Your task to perform on an android device: Go to settings Image 0: 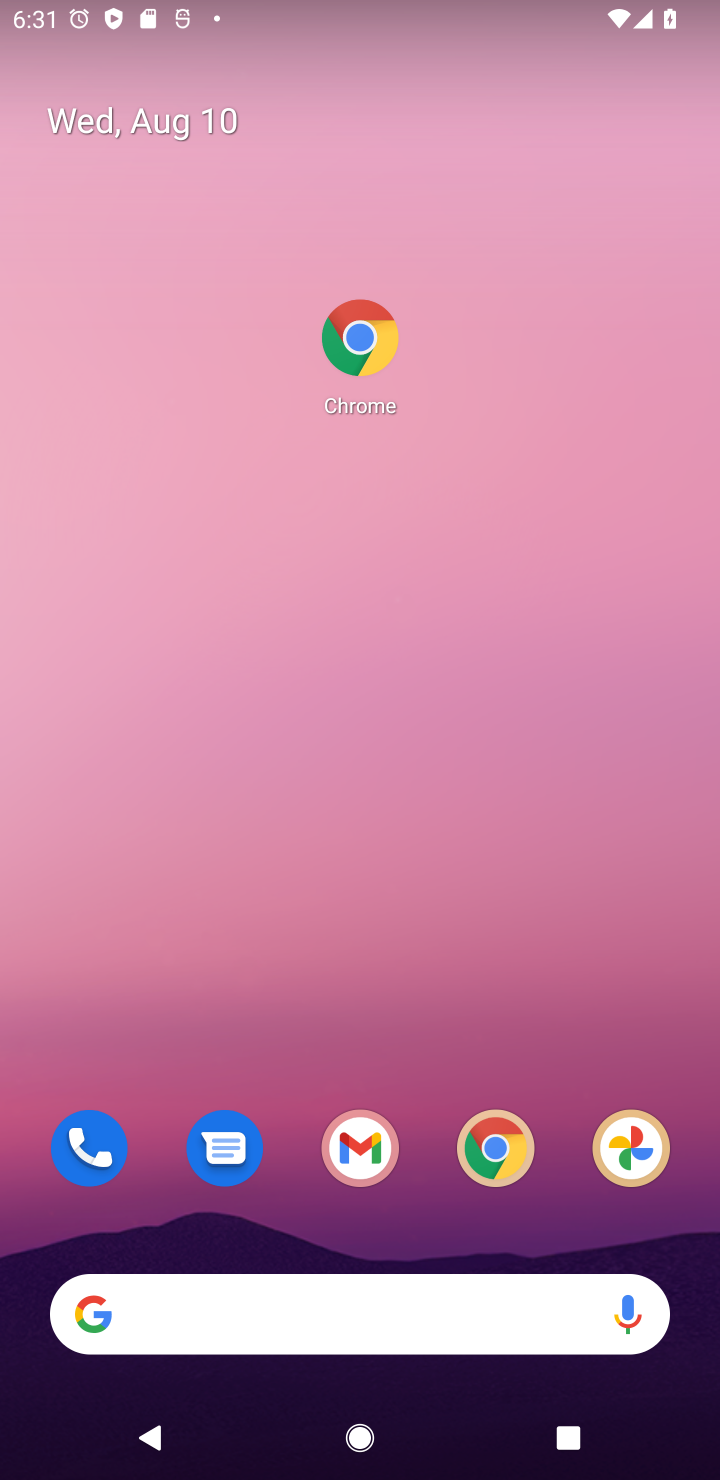
Step 0: drag from (443, 1044) to (454, 73)
Your task to perform on an android device: Go to settings Image 1: 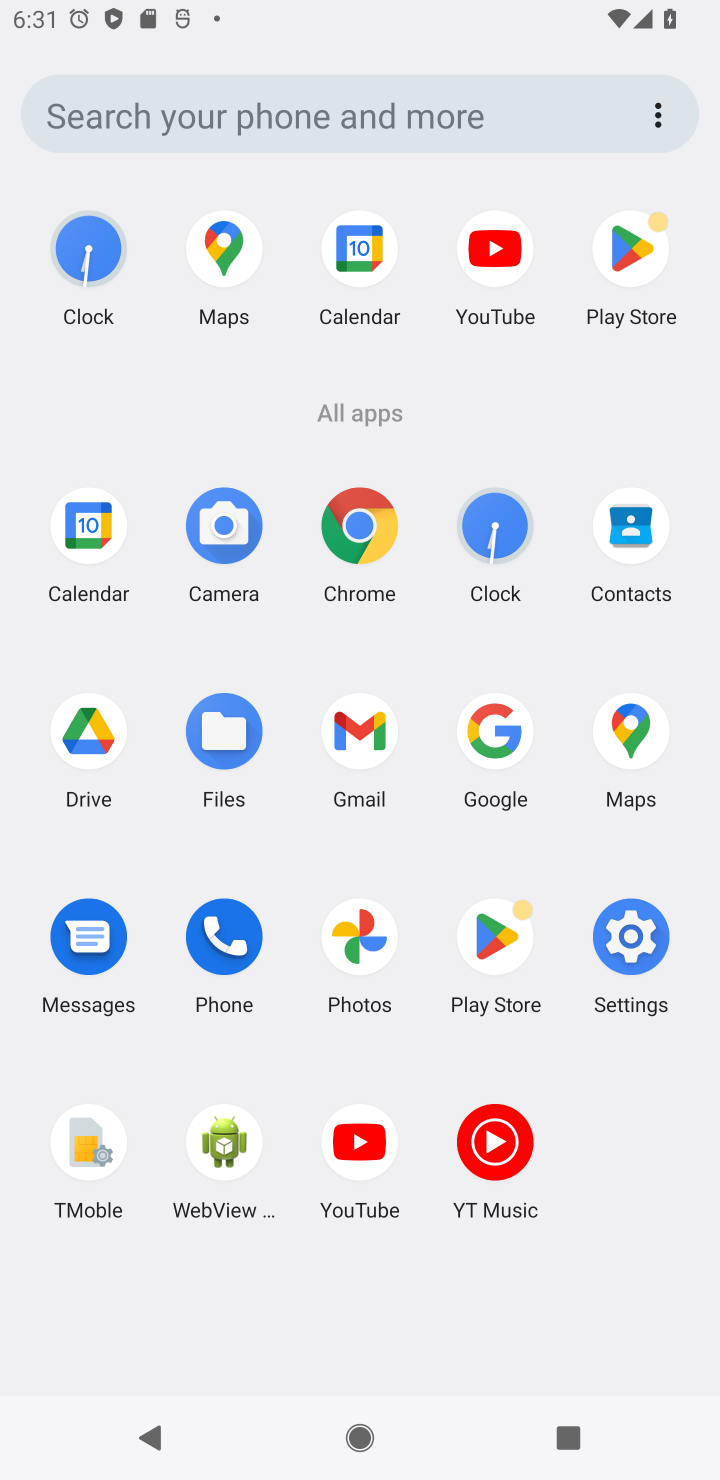
Step 1: click (629, 951)
Your task to perform on an android device: Go to settings Image 2: 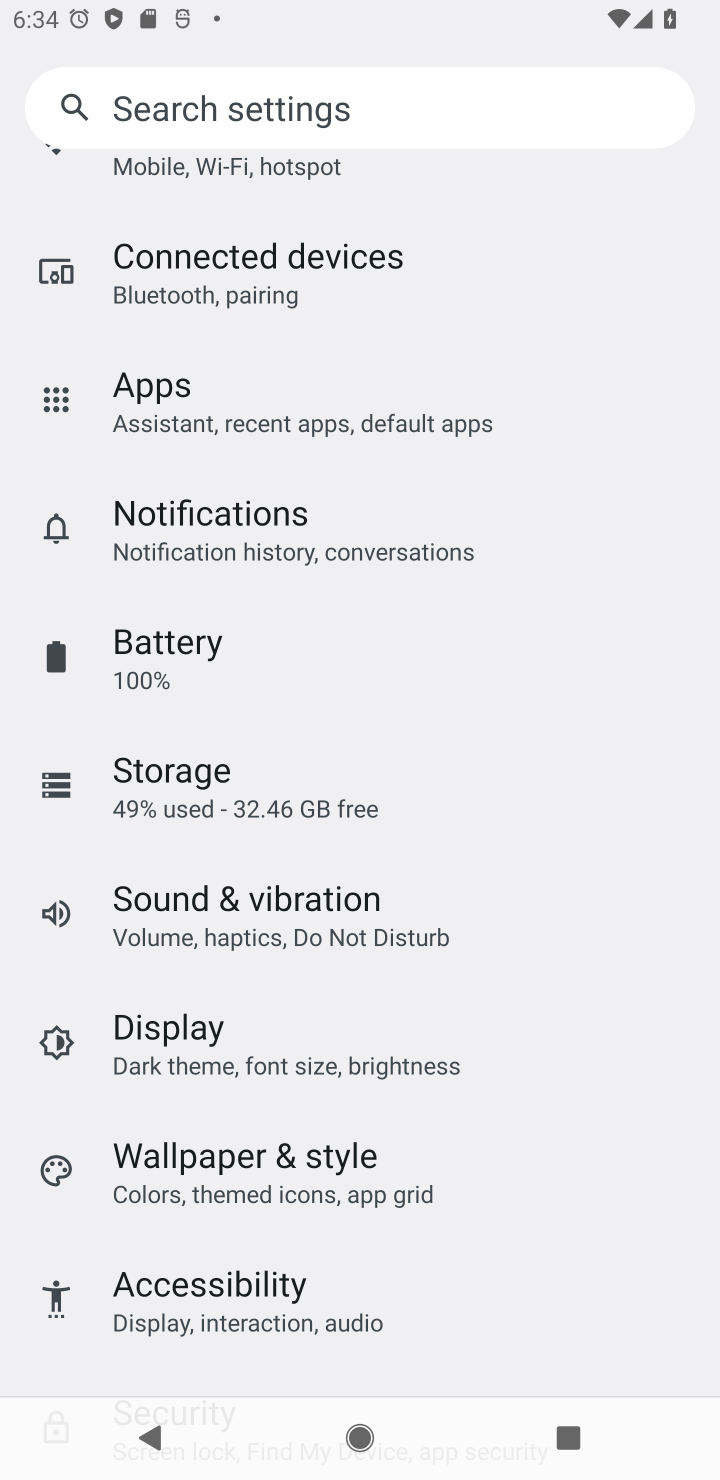
Step 2: task complete